Your task to perform on an android device: Check the news Image 0: 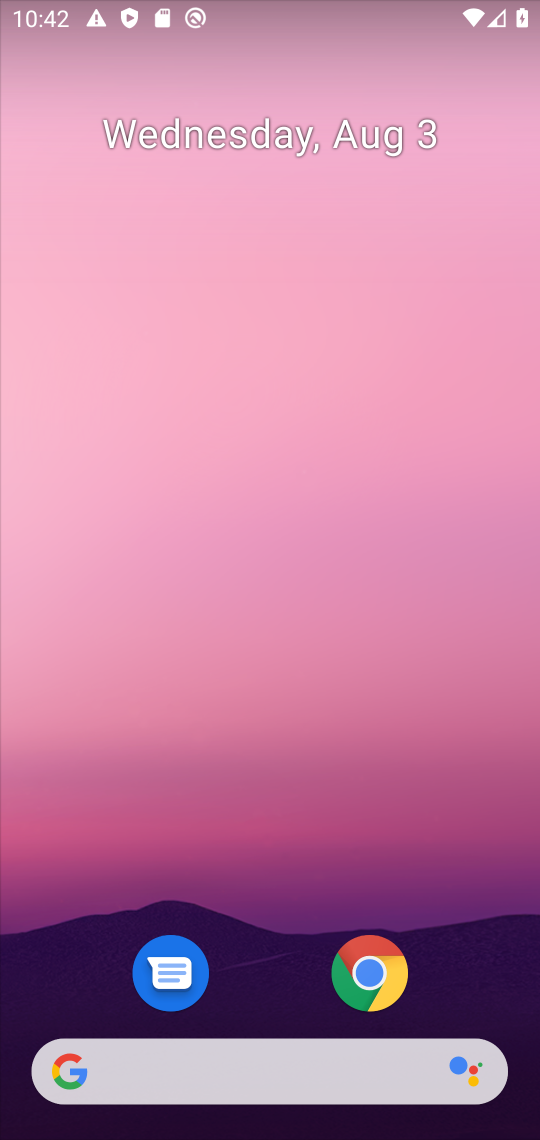
Step 0: click (259, 1060)
Your task to perform on an android device: Check the news Image 1: 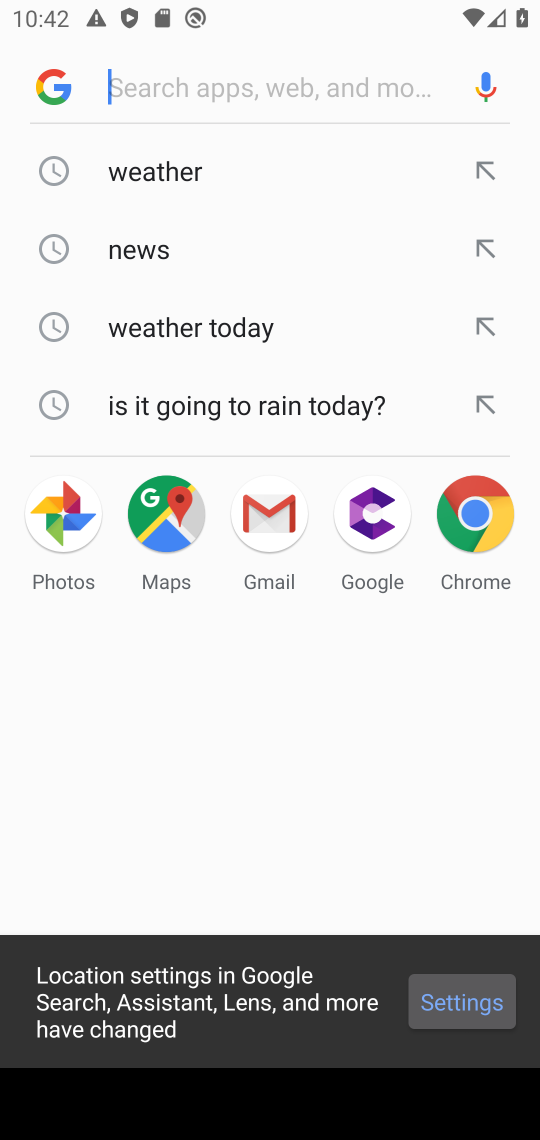
Step 1: click (140, 251)
Your task to perform on an android device: Check the news Image 2: 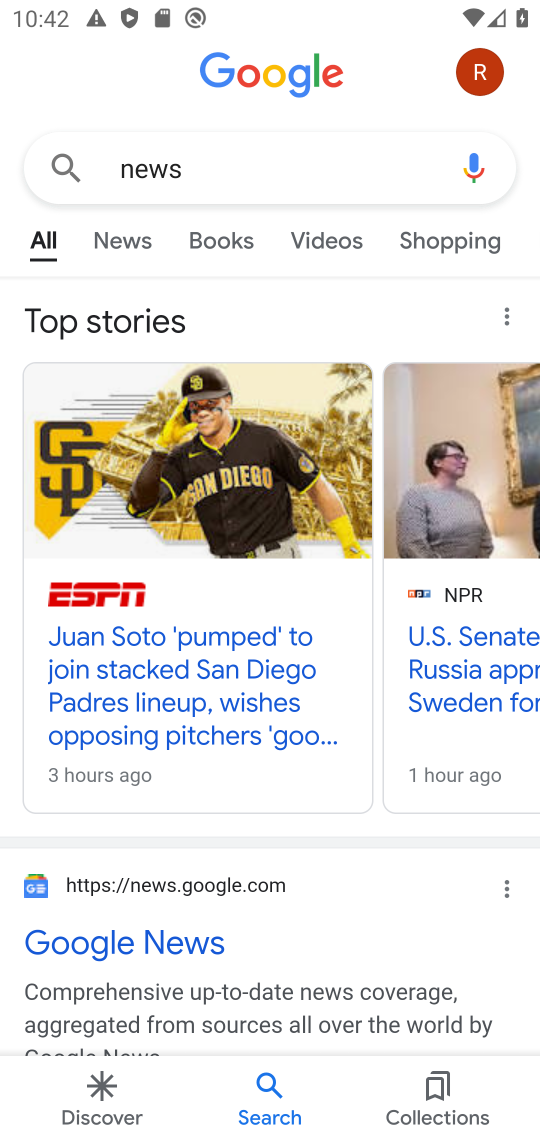
Step 2: task complete